Your task to perform on an android device: turn on notifications settings in the gmail app Image 0: 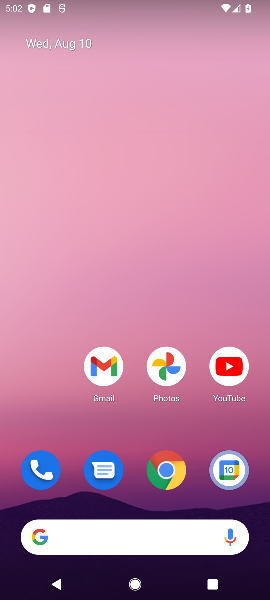
Step 0: drag from (168, 484) to (58, 31)
Your task to perform on an android device: turn on notifications settings in the gmail app Image 1: 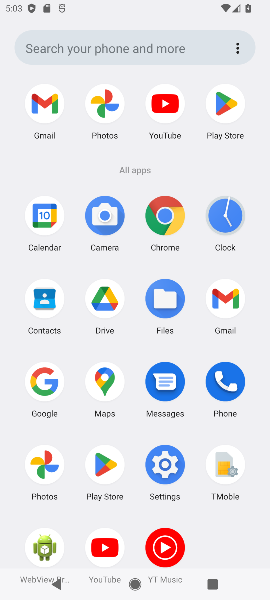
Step 1: click (37, 119)
Your task to perform on an android device: turn on notifications settings in the gmail app Image 2: 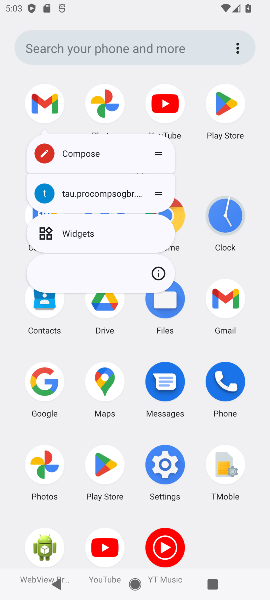
Step 2: click (159, 280)
Your task to perform on an android device: turn on notifications settings in the gmail app Image 3: 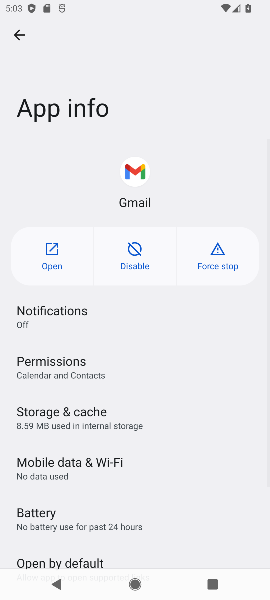
Step 3: click (64, 311)
Your task to perform on an android device: turn on notifications settings in the gmail app Image 4: 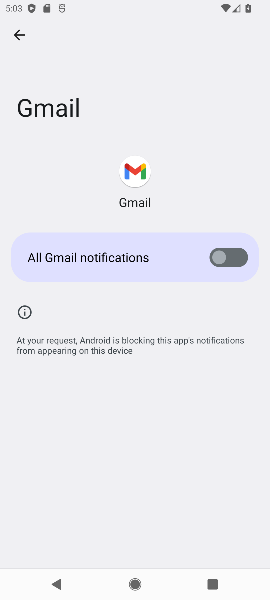
Step 4: click (181, 267)
Your task to perform on an android device: turn on notifications settings in the gmail app Image 5: 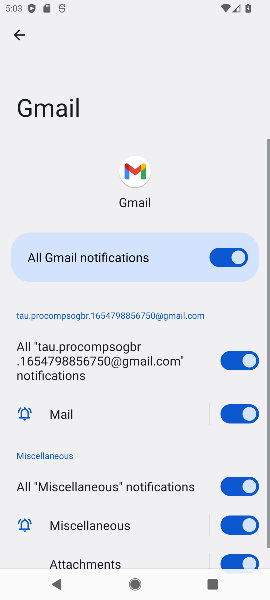
Step 5: task complete